Your task to perform on an android device: Open Google Maps and go to "Timeline" Image 0: 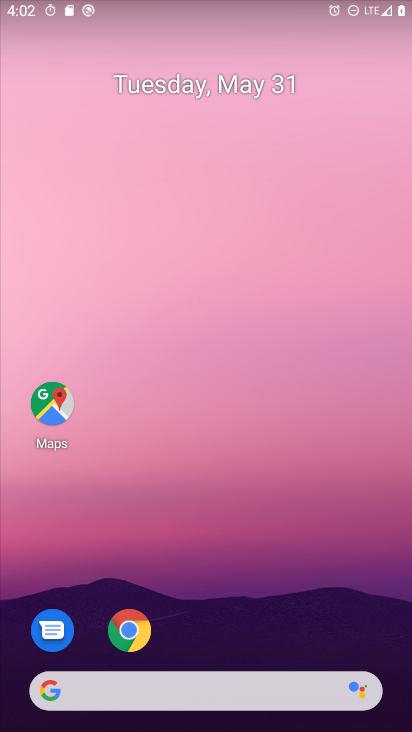
Step 0: drag from (234, 723) to (222, 190)
Your task to perform on an android device: Open Google Maps and go to "Timeline" Image 1: 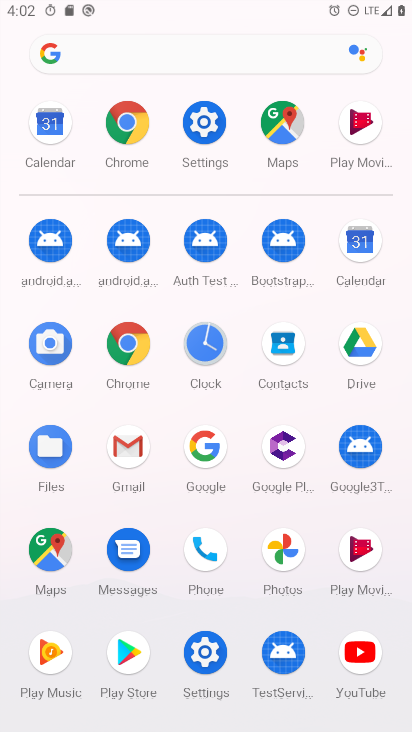
Step 1: click (39, 552)
Your task to perform on an android device: Open Google Maps and go to "Timeline" Image 2: 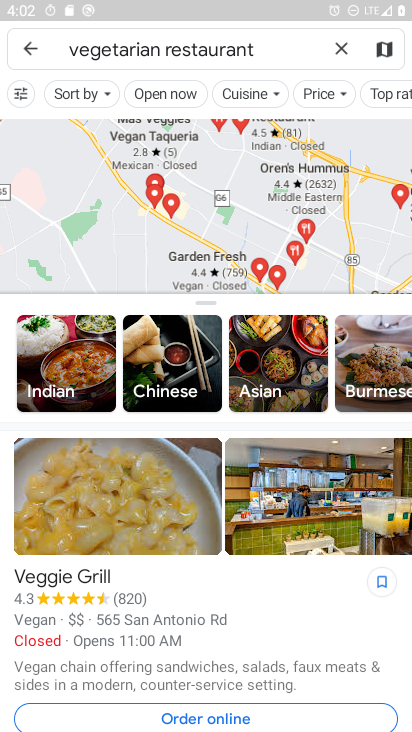
Step 2: press back button
Your task to perform on an android device: Open Google Maps and go to "Timeline" Image 3: 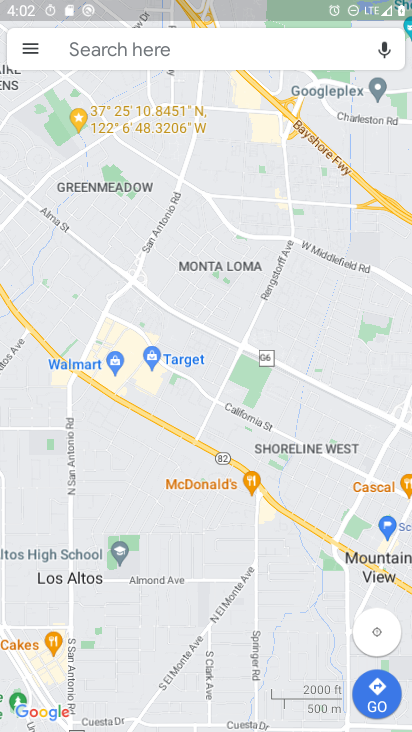
Step 3: click (37, 45)
Your task to perform on an android device: Open Google Maps and go to "Timeline" Image 4: 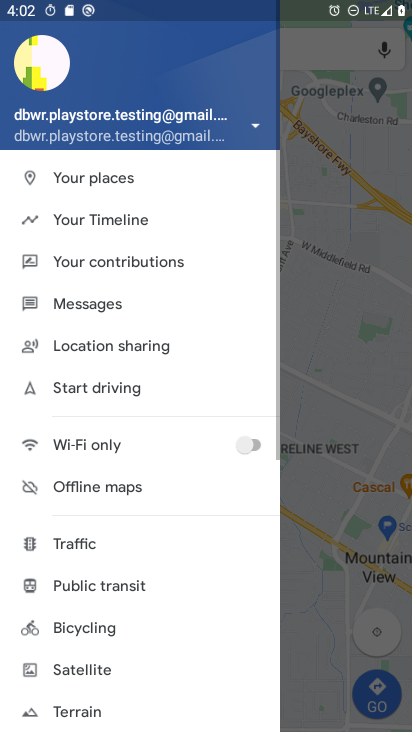
Step 4: click (143, 219)
Your task to perform on an android device: Open Google Maps and go to "Timeline" Image 5: 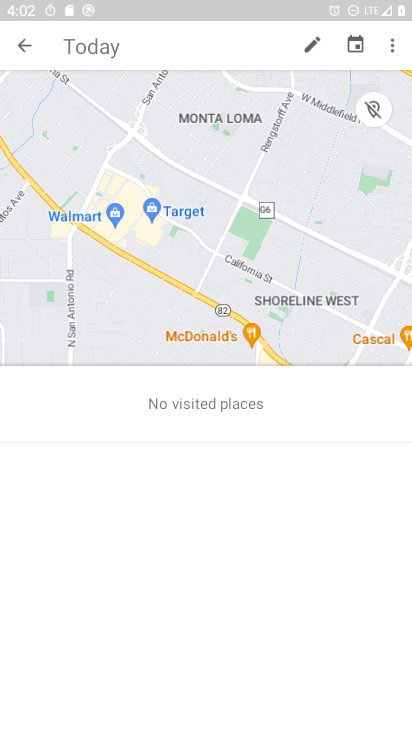
Step 5: task complete